Your task to perform on an android device: Open CNN.com Image 0: 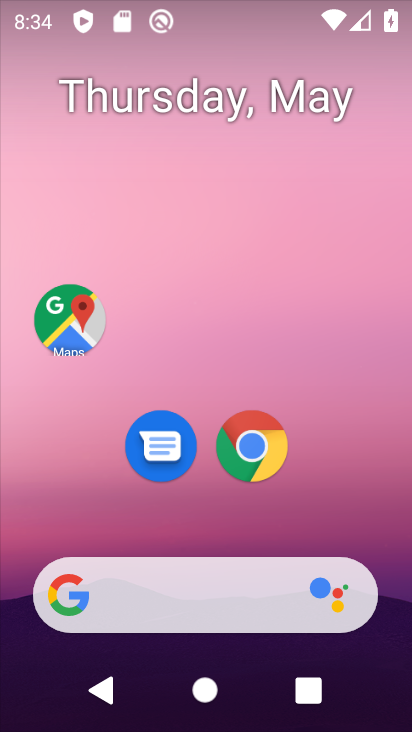
Step 0: click (252, 442)
Your task to perform on an android device: Open CNN.com Image 1: 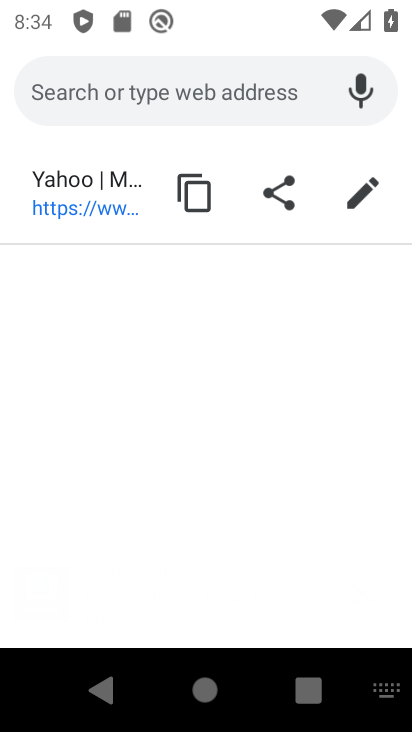
Step 1: type "cnn.,com"
Your task to perform on an android device: Open CNN.com Image 2: 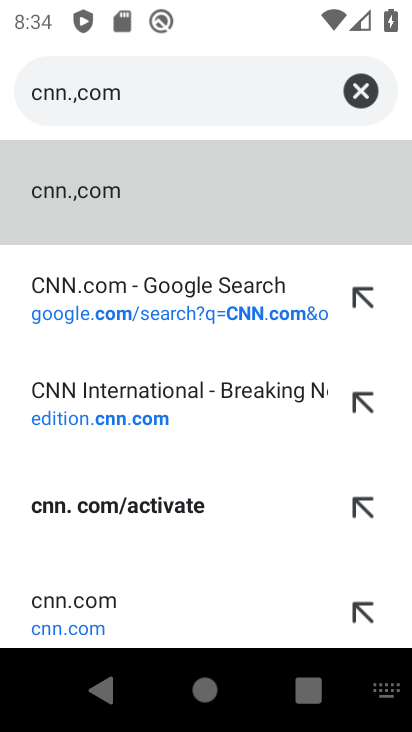
Step 2: click (67, 189)
Your task to perform on an android device: Open CNN.com Image 3: 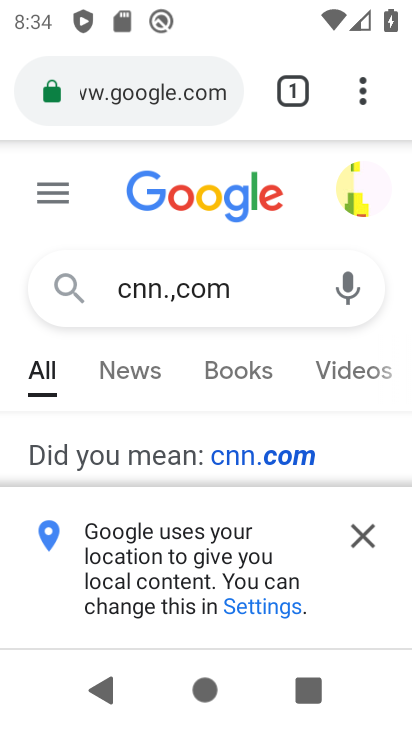
Step 3: click (360, 537)
Your task to perform on an android device: Open CNN.com Image 4: 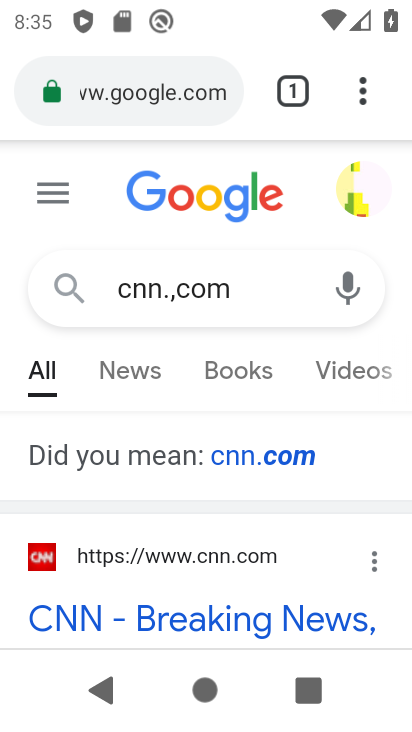
Step 4: drag from (250, 552) to (198, 174)
Your task to perform on an android device: Open CNN.com Image 5: 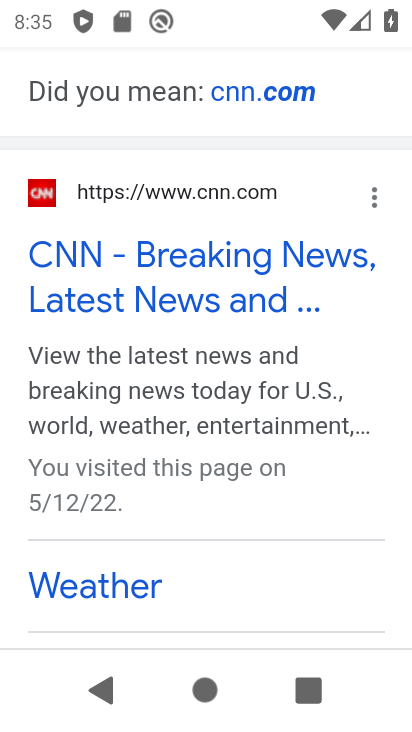
Step 5: click (152, 261)
Your task to perform on an android device: Open CNN.com Image 6: 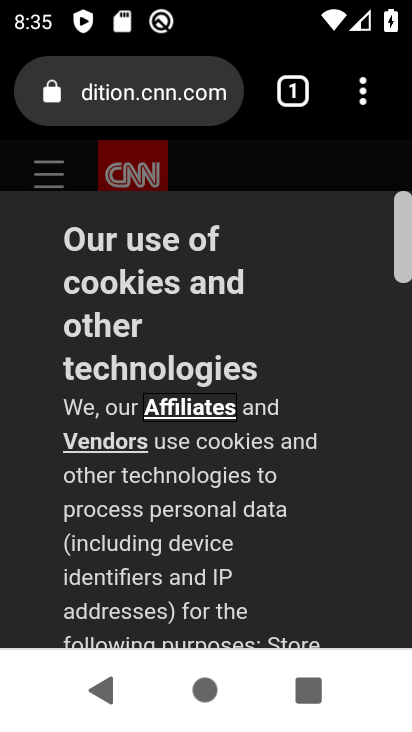
Step 6: task complete